Your task to perform on an android device: turn on javascript in the chrome app Image 0: 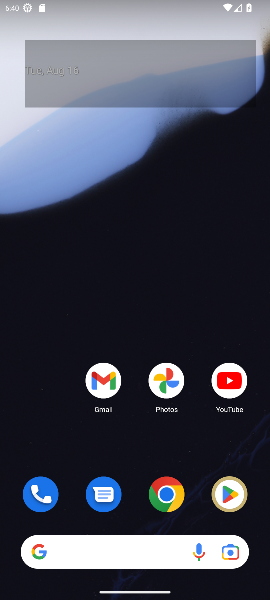
Step 0: drag from (35, 433) to (93, 124)
Your task to perform on an android device: turn on javascript in the chrome app Image 1: 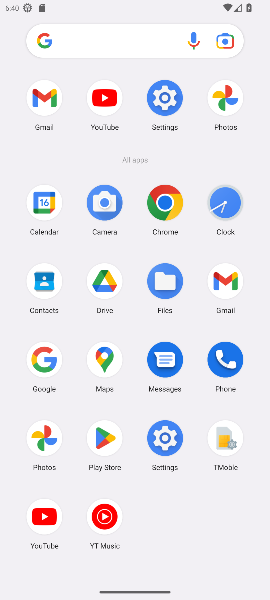
Step 1: click (167, 209)
Your task to perform on an android device: turn on javascript in the chrome app Image 2: 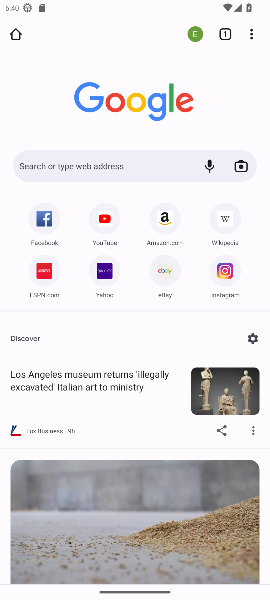
Step 2: task complete